Your task to perform on an android device: turn on airplane mode Image 0: 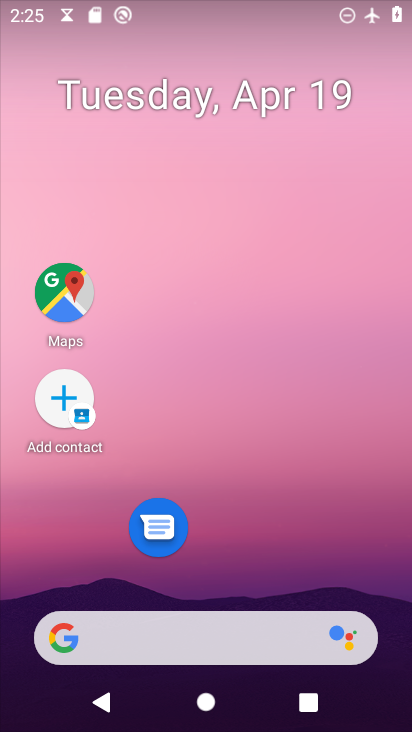
Step 0: drag from (237, 590) to (291, 83)
Your task to perform on an android device: turn on airplane mode Image 1: 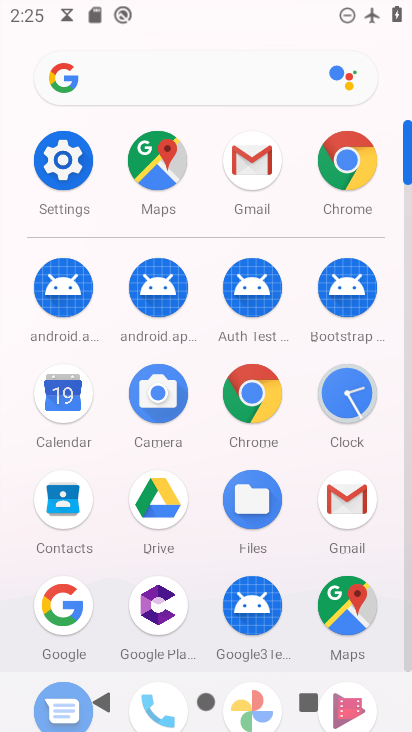
Step 1: click (63, 161)
Your task to perform on an android device: turn on airplane mode Image 2: 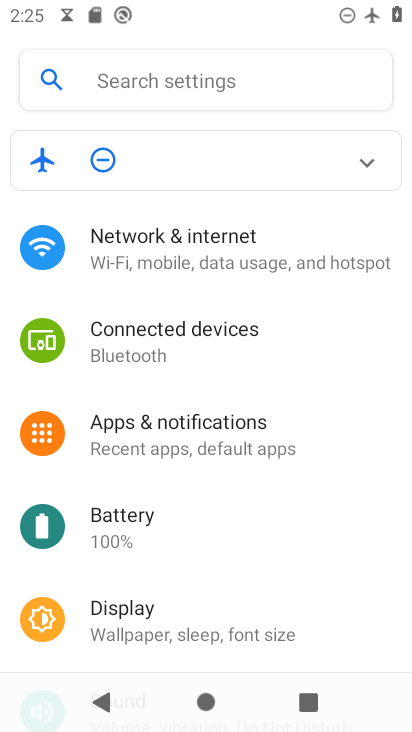
Step 2: click (183, 236)
Your task to perform on an android device: turn on airplane mode Image 3: 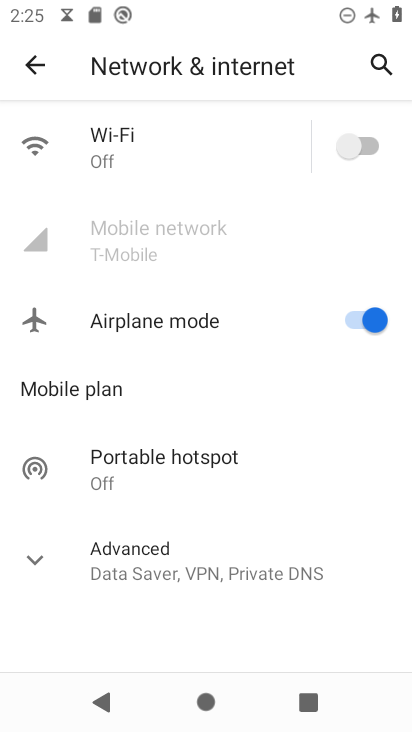
Step 3: task complete